Your task to perform on an android device: Go to Yahoo.com Image 0: 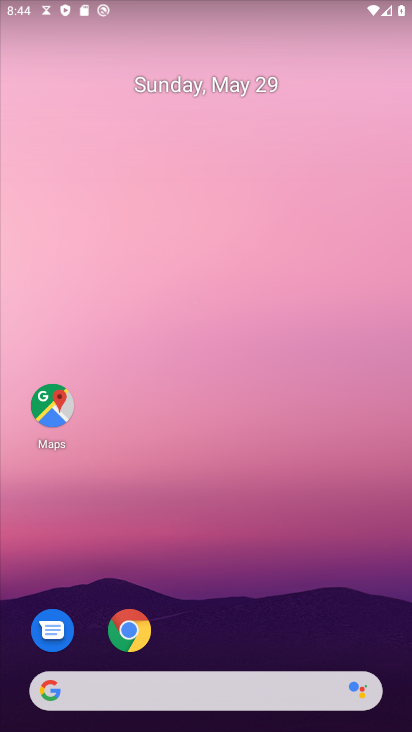
Step 0: click (130, 624)
Your task to perform on an android device: Go to Yahoo.com Image 1: 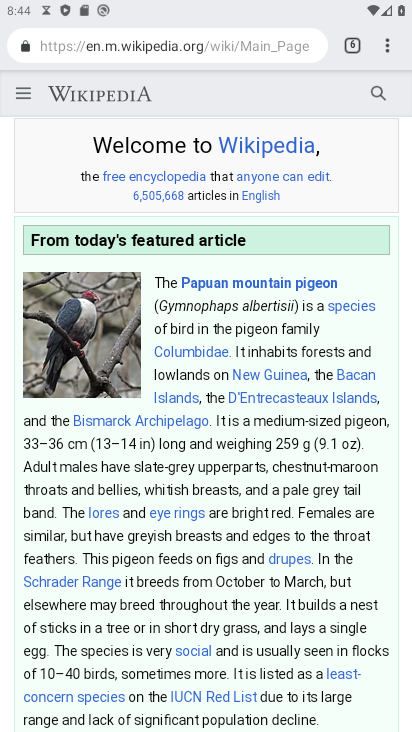
Step 1: click (353, 39)
Your task to perform on an android device: Go to Yahoo.com Image 2: 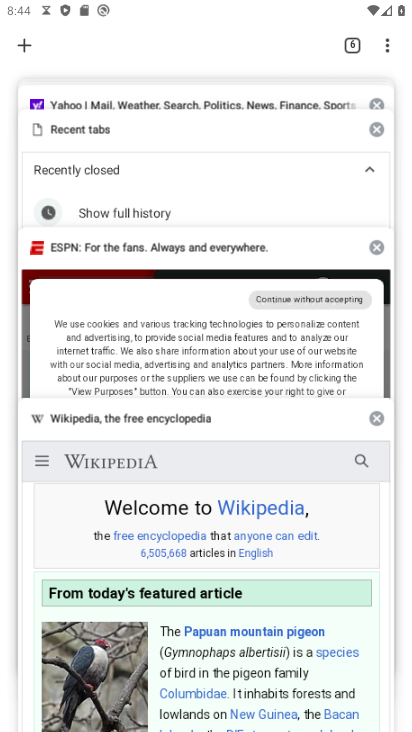
Step 2: click (219, 95)
Your task to perform on an android device: Go to Yahoo.com Image 3: 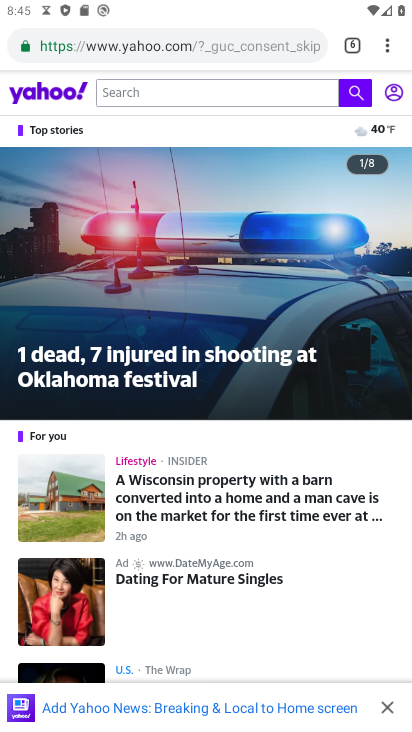
Step 3: task complete